Your task to perform on an android device: turn on showing notifications on the lock screen Image 0: 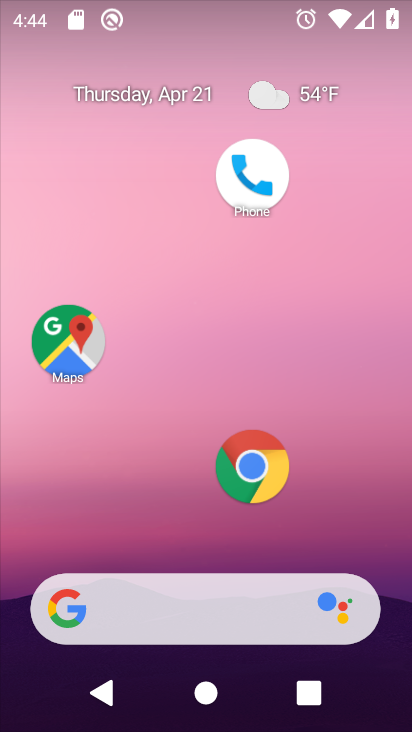
Step 0: drag from (188, 474) to (249, 24)
Your task to perform on an android device: turn on showing notifications on the lock screen Image 1: 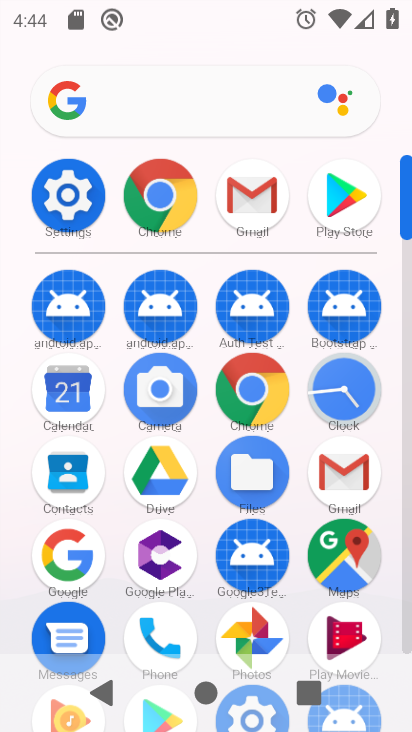
Step 1: click (83, 192)
Your task to perform on an android device: turn on showing notifications on the lock screen Image 2: 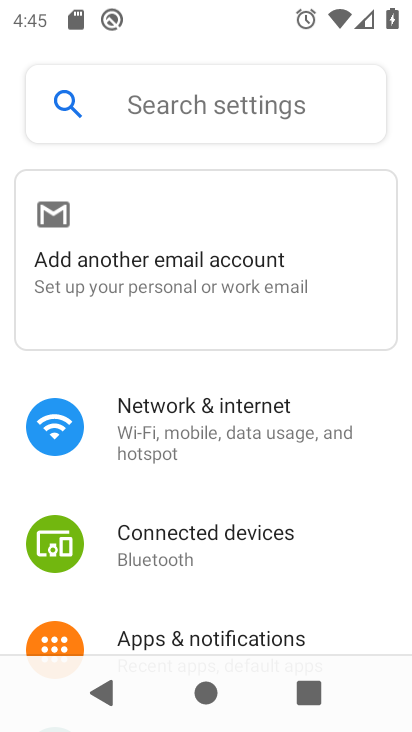
Step 2: drag from (254, 625) to (250, 295)
Your task to perform on an android device: turn on showing notifications on the lock screen Image 3: 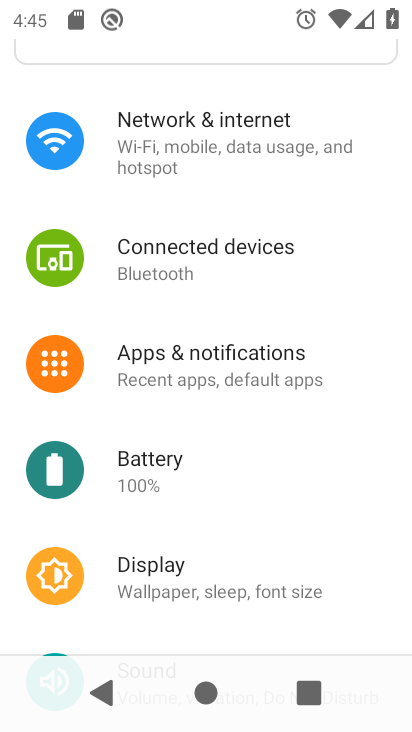
Step 3: click (275, 369)
Your task to perform on an android device: turn on showing notifications on the lock screen Image 4: 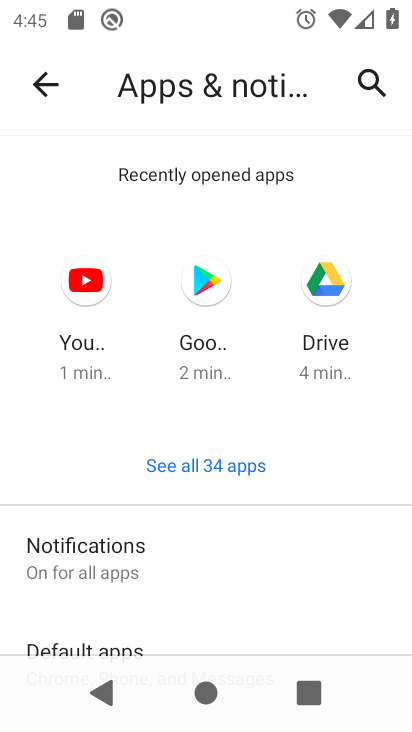
Step 4: click (171, 574)
Your task to perform on an android device: turn on showing notifications on the lock screen Image 5: 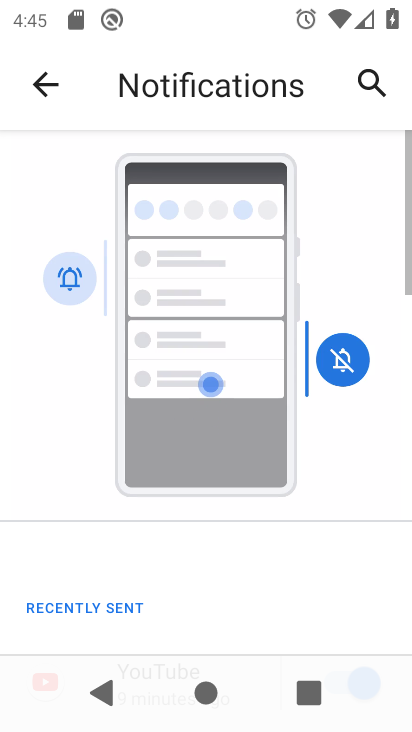
Step 5: drag from (228, 604) to (271, 108)
Your task to perform on an android device: turn on showing notifications on the lock screen Image 6: 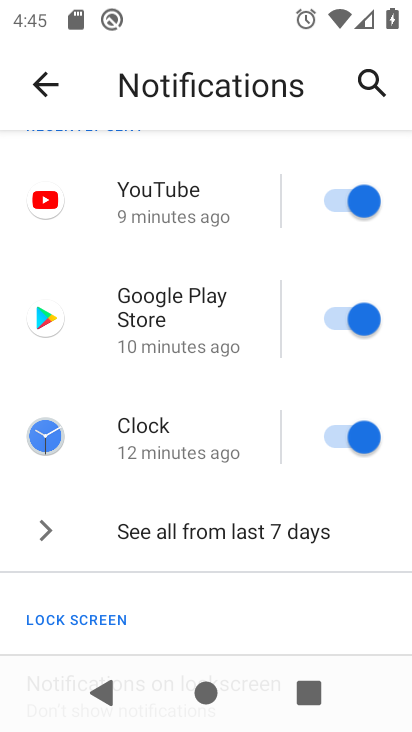
Step 6: drag from (204, 605) to (262, 129)
Your task to perform on an android device: turn on showing notifications on the lock screen Image 7: 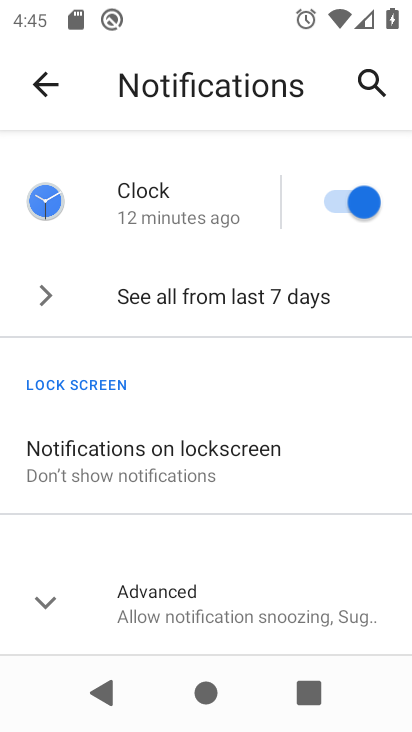
Step 7: click (155, 468)
Your task to perform on an android device: turn on showing notifications on the lock screen Image 8: 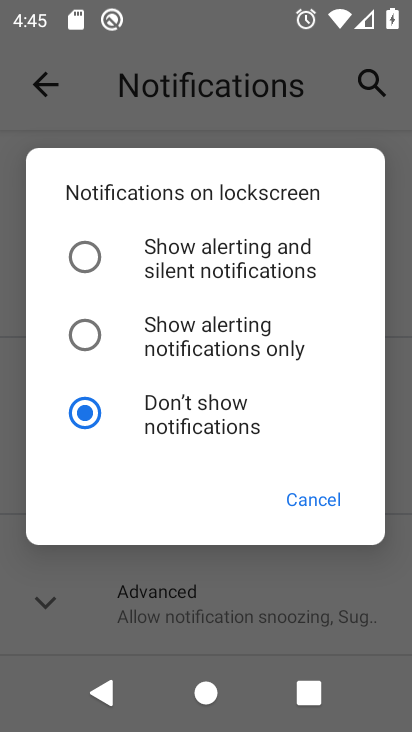
Step 8: click (220, 249)
Your task to perform on an android device: turn on showing notifications on the lock screen Image 9: 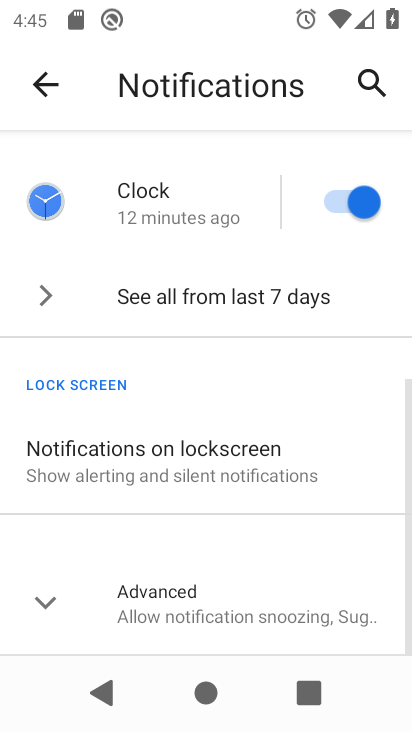
Step 9: task complete